Your task to perform on an android device: Open the stopwatch Image 0: 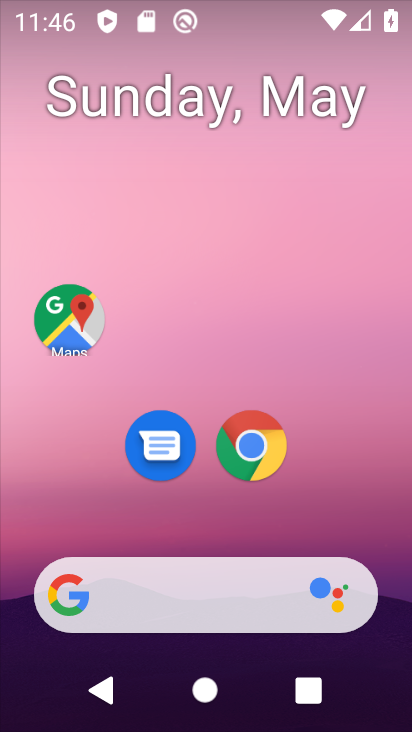
Step 0: drag from (348, 506) to (348, 46)
Your task to perform on an android device: Open the stopwatch Image 1: 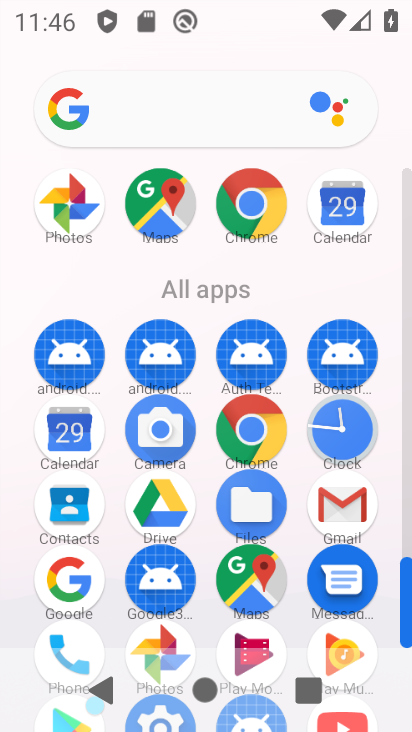
Step 1: click (332, 441)
Your task to perform on an android device: Open the stopwatch Image 2: 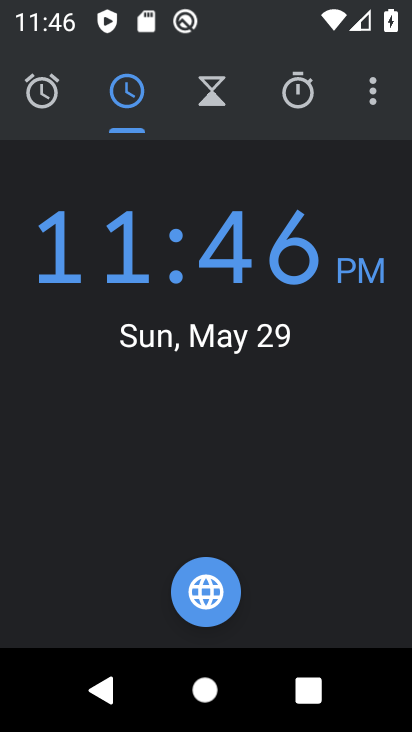
Step 2: click (288, 94)
Your task to perform on an android device: Open the stopwatch Image 3: 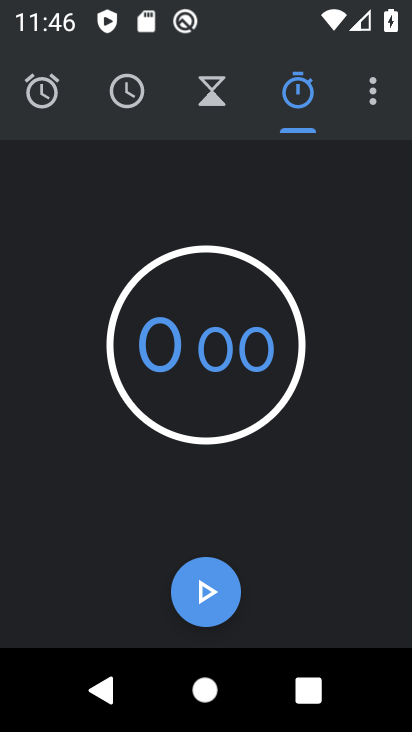
Step 3: task complete